Your task to perform on an android device: empty trash in the gmail app Image 0: 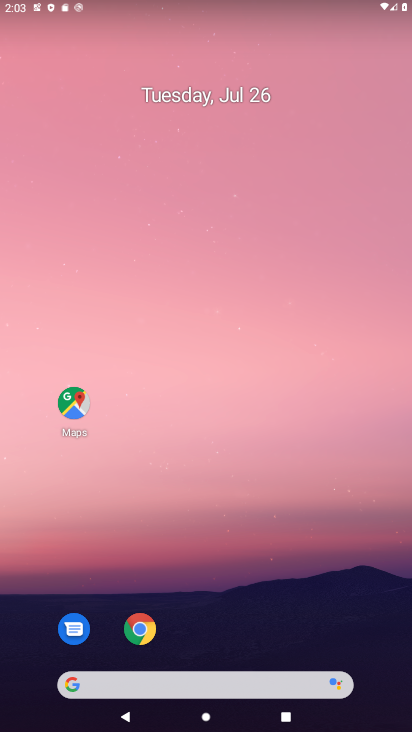
Step 0: drag from (217, 627) to (198, 195)
Your task to perform on an android device: empty trash in the gmail app Image 1: 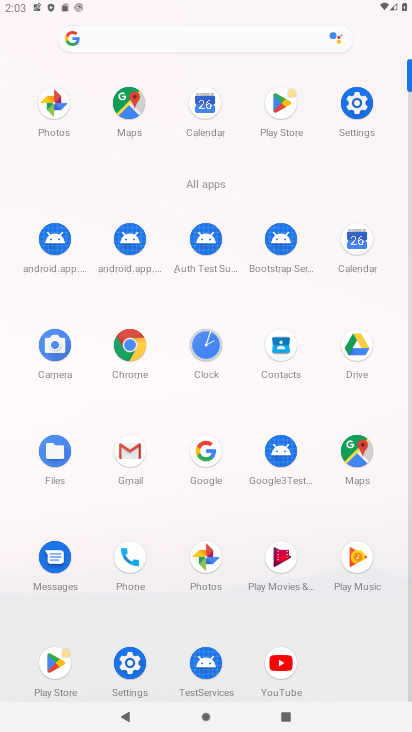
Step 1: click (141, 456)
Your task to perform on an android device: empty trash in the gmail app Image 2: 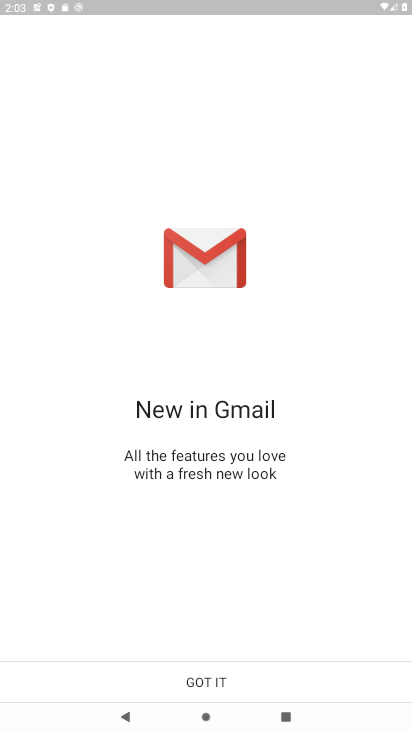
Step 2: click (232, 689)
Your task to perform on an android device: empty trash in the gmail app Image 3: 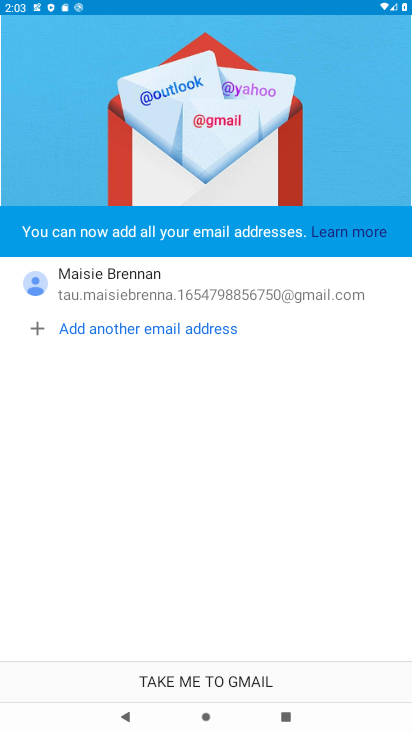
Step 3: click (232, 689)
Your task to perform on an android device: empty trash in the gmail app Image 4: 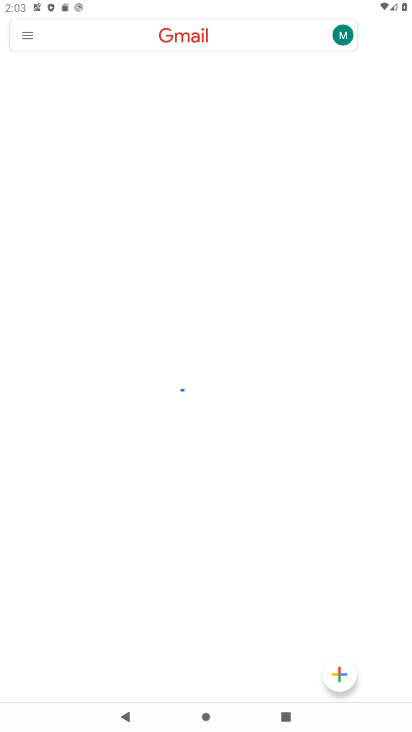
Step 4: click (28, 39)
Your task to perform on an android device: empty trash in the gmail app Image 5: 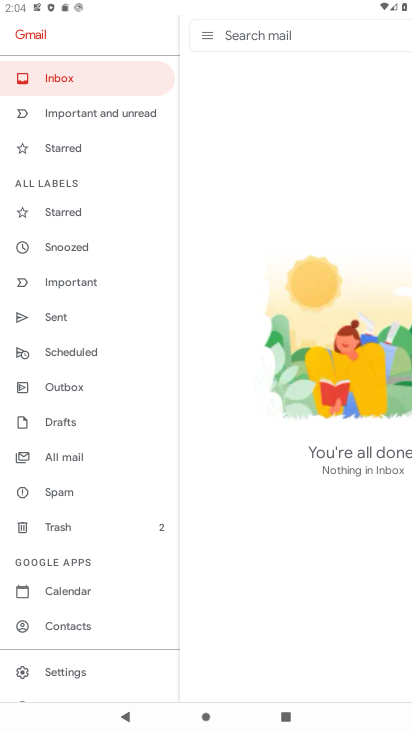
Step 5: click (81, 528)
Your task to perform on an android device: empty trash in the gmail app Image 6: 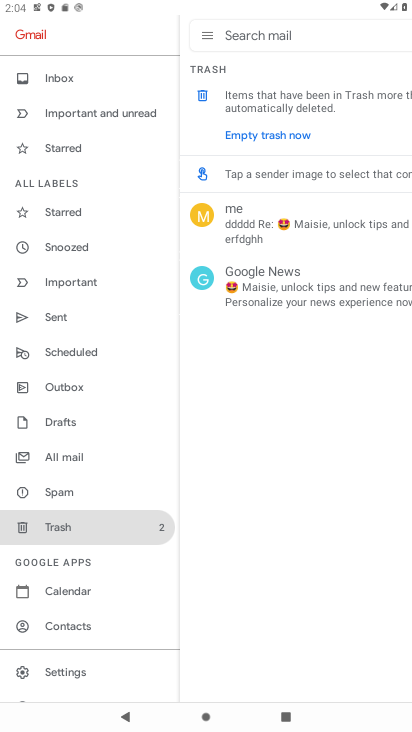
Step 6: click (250, 129)
Your task to perform on an android device: empty trash in the gmail app Image 7: 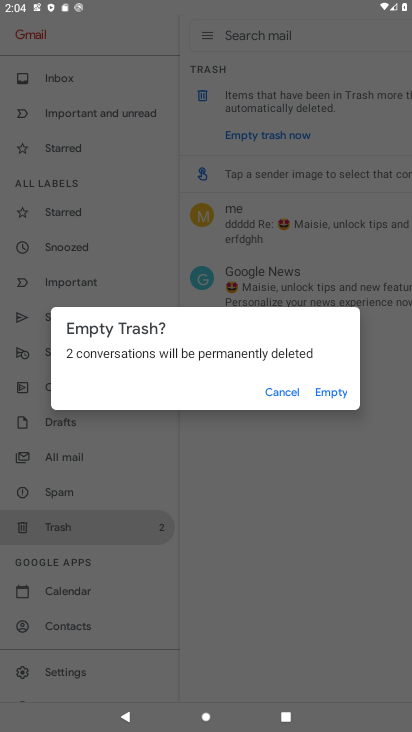
Step 7: click (328, 394)
Your task to perform on an android device: empty trash in the gmail app Image 8: 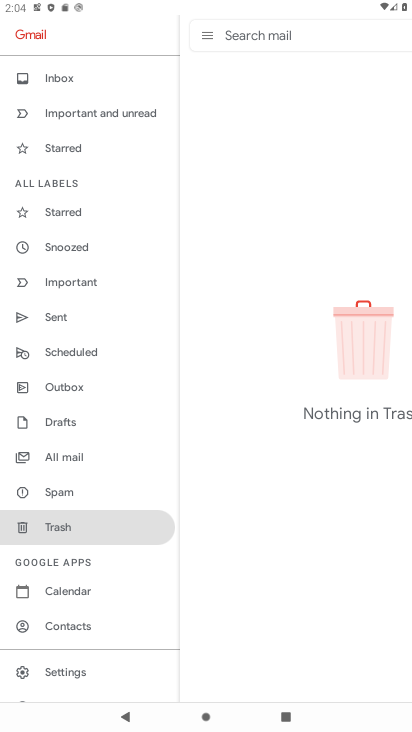
Step 8: task complete